Your task to perform on an android device: delete the emails in spam in the gmail app Image 0: 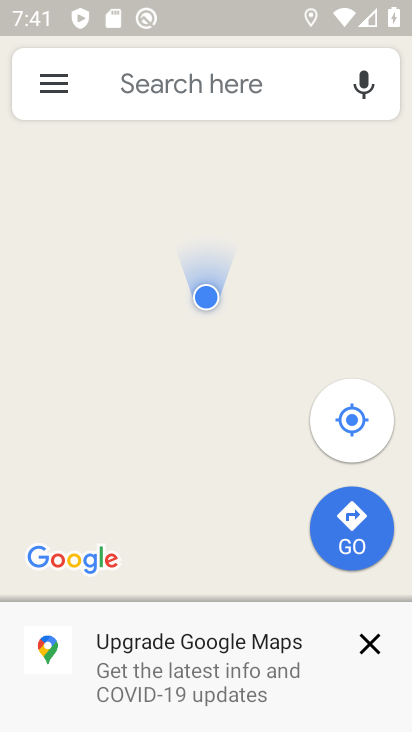
Step 0: press home button
Your task to perform on an android device: delete the emails in spam in the gmail app Image 1: 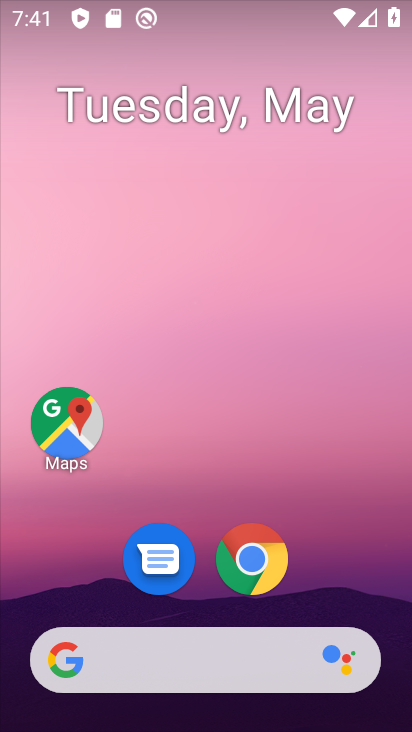
Step 1: drag from (336, 583) to (311, 49)
Your task to perform on an android device: delete the emails in spam in the gmail app Image 2: 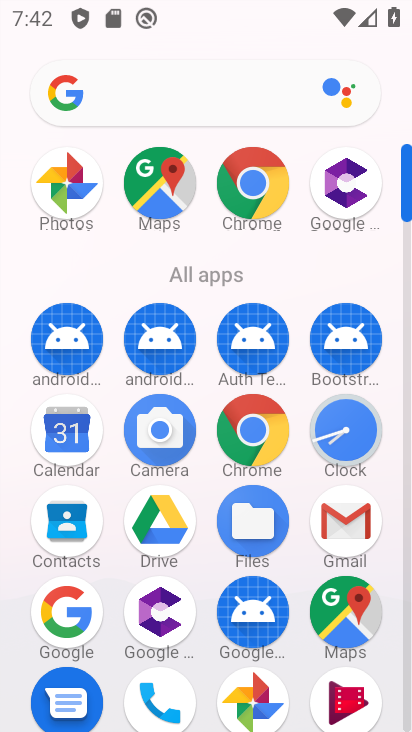
Step 2: click (361, 530)
Your task to perform on an android device: delete the emails in spam in the gmail app Image 3: 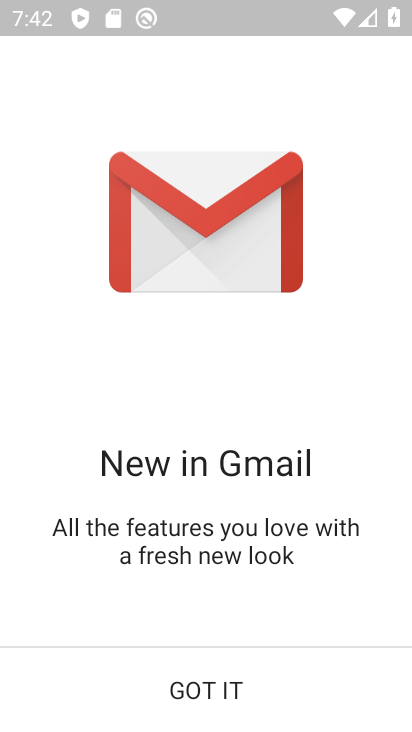
Step 3: click (235, 674)
Your task to perform on an android device: delete the emails in spam in the gmail app Image 4: 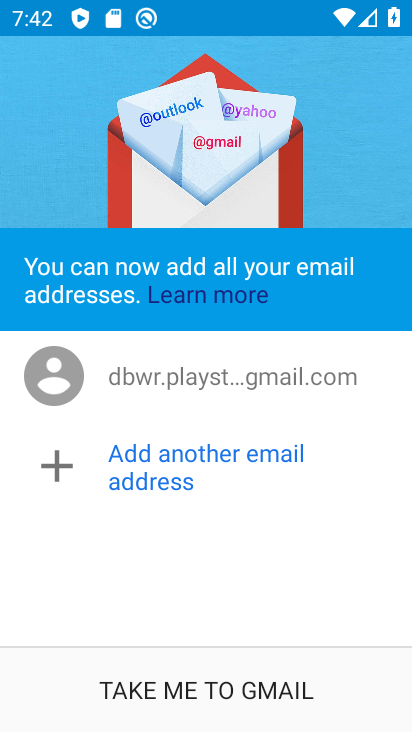
Step 4: click (226, 680)
Your task to perform on an android device: delete the emails in spam in the gmail app Image 5: 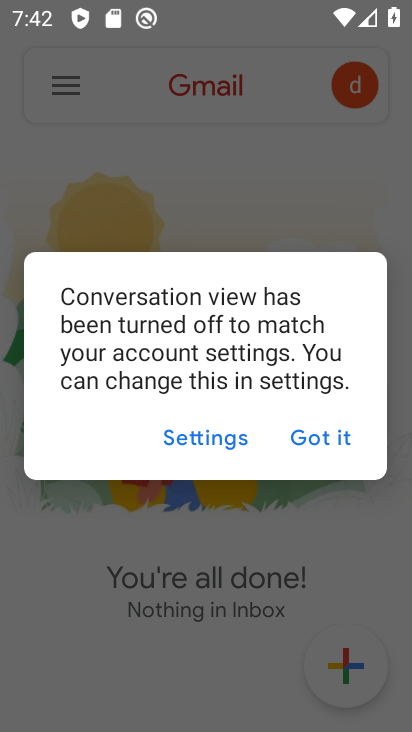
Step 5: click (309, 434)
Your task to perform on an android device: delete the emails in spam in the gmail app Image 6: 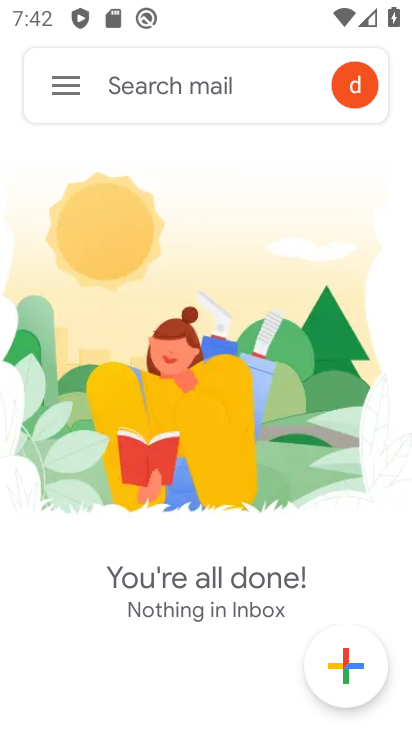
Step 6: click (72, 95)
Your task to perform on an android device: delete the emails in spam in the gmail app Image 7: 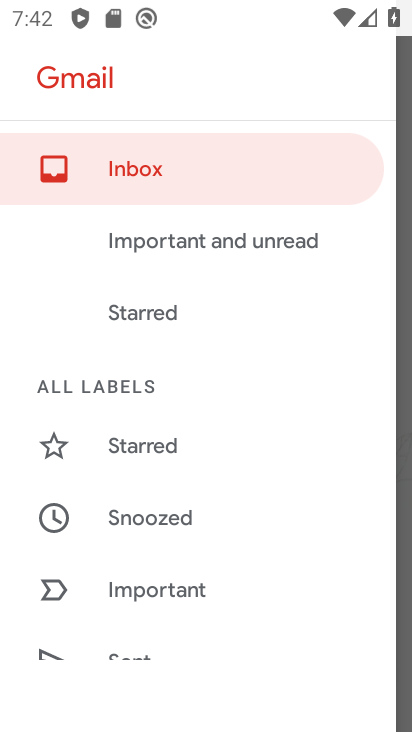
Step 7: drag from (179, 617) to (269, 189)
Your task to perform on an android device: delete the emails in spam in the gmail app Image 8: 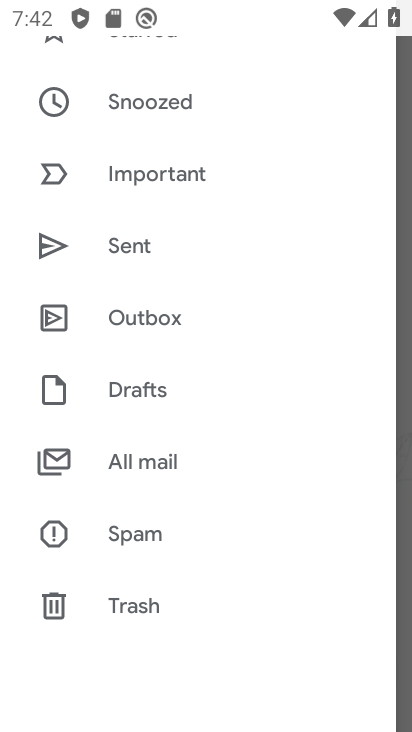
Step 8: click (150, 538)
Your task to perform on an android device: delete the emails in spam in the gmail app Image 9: 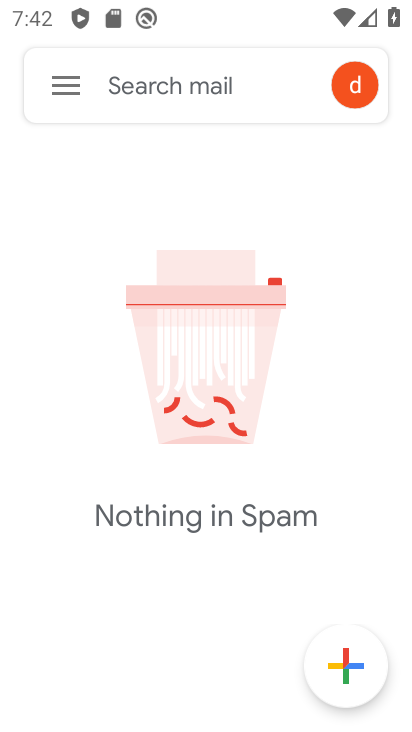
Step 9: task complete